Your task to perform on an android device: What's the weather today? Image 0: 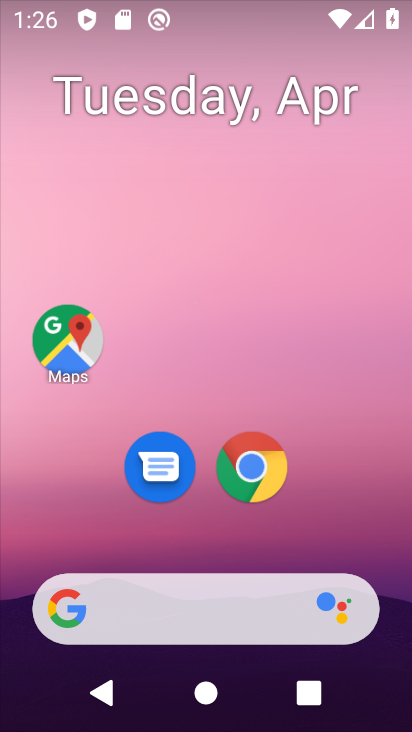
Step 0: click (191, 611)
Your task to perform on an android device: What's the weather today? Image 1: 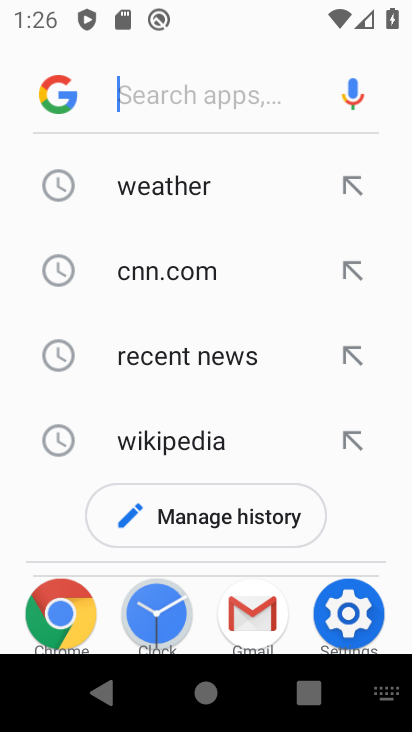
Step 1: click (183, 186)
Your task to perform on an android device: What's the weather today? Image 2: 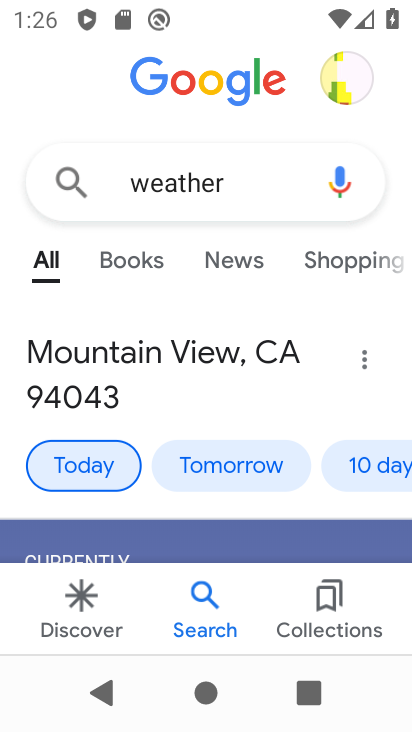
Step 2: task complete